Your task to perform on an android device: Show the shopping cart on newegg.com. Search for "usb-a" on newegg.com, select the first entry, add it to the cart, then select checkout. Image 0: 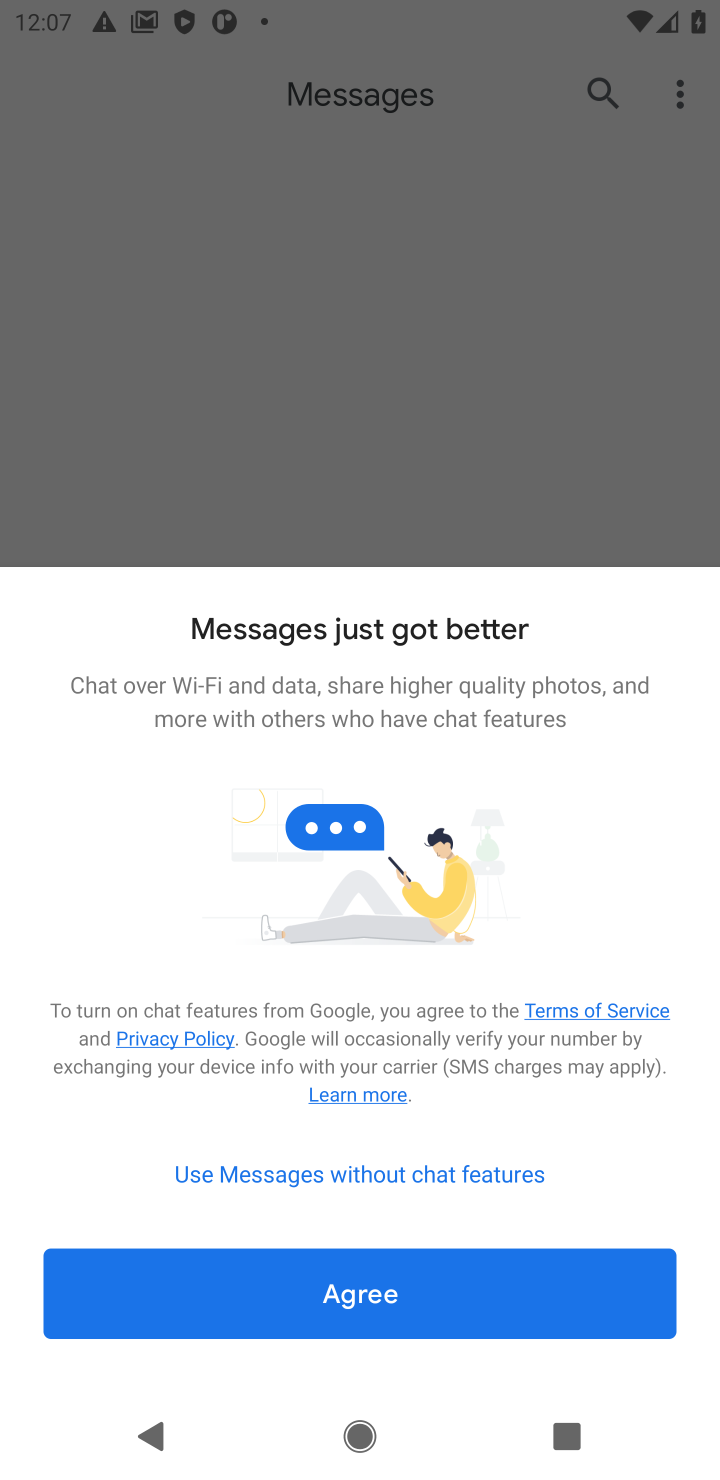
Step 0: press home button
Your task to perform on an android device: Show the shopping cart on newegg.com. Search for "usb-a" on newegg.com, select the first entry, add it to the cart, then select checkout. Image 1: 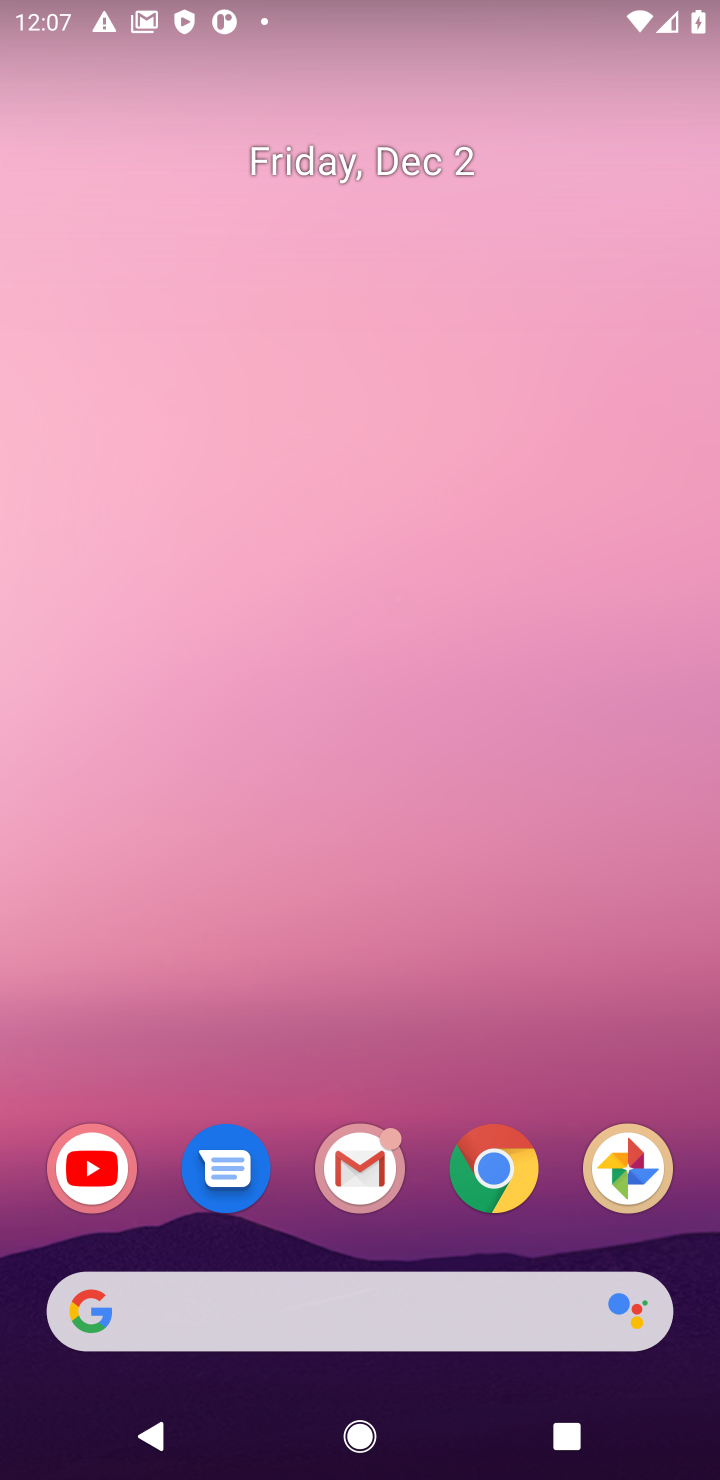
Step 1: click (488, 1171)
Your task to perform on an android device: Show the shopping cart on newegg.com. Search for "usb-a" on newegg.com, select the first entry, add it to the cart, then select checkout. Image 2: 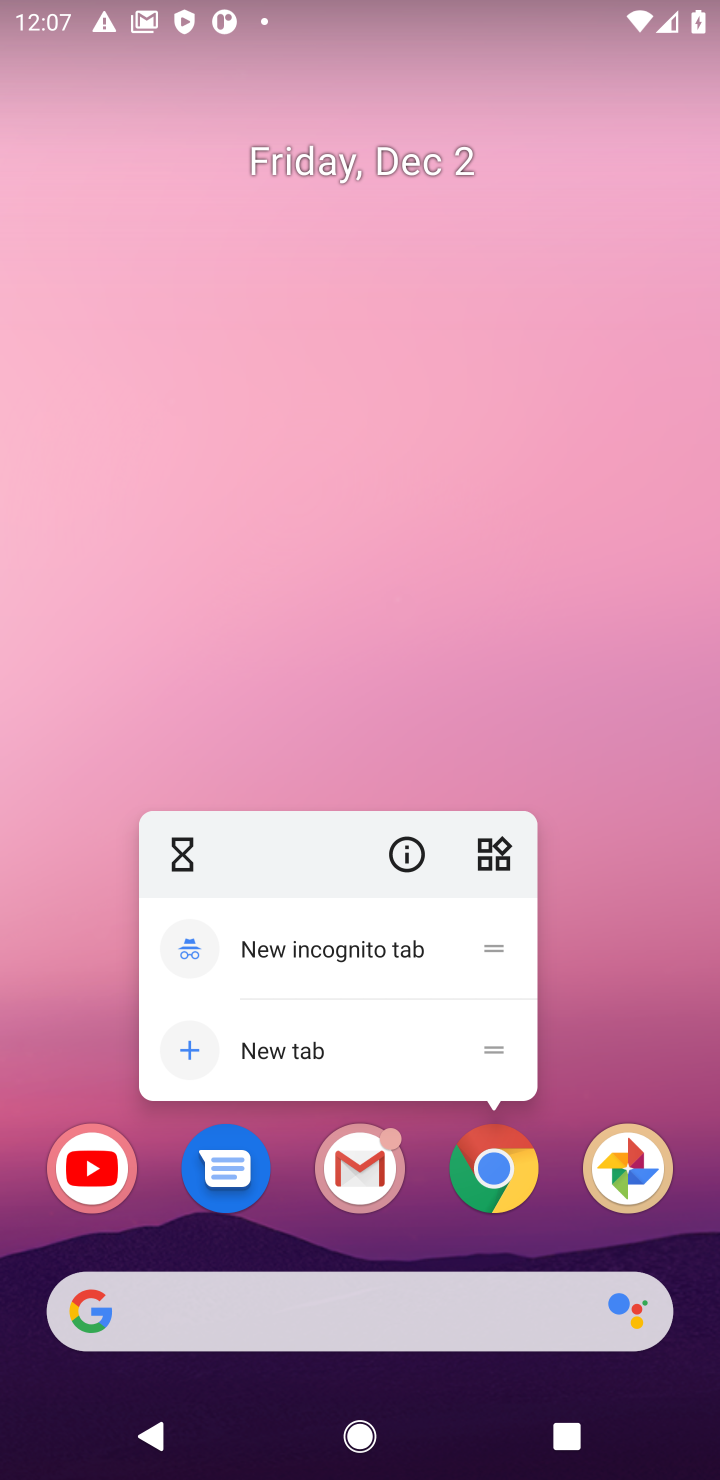
Step 2: click (488, 1171)
Your task to perform on an android device: Show the shopping cart on newegg.com. Search for "usb-a" on newegg.com, select the first entry, add it to the cart, then select checkout. Image 3: 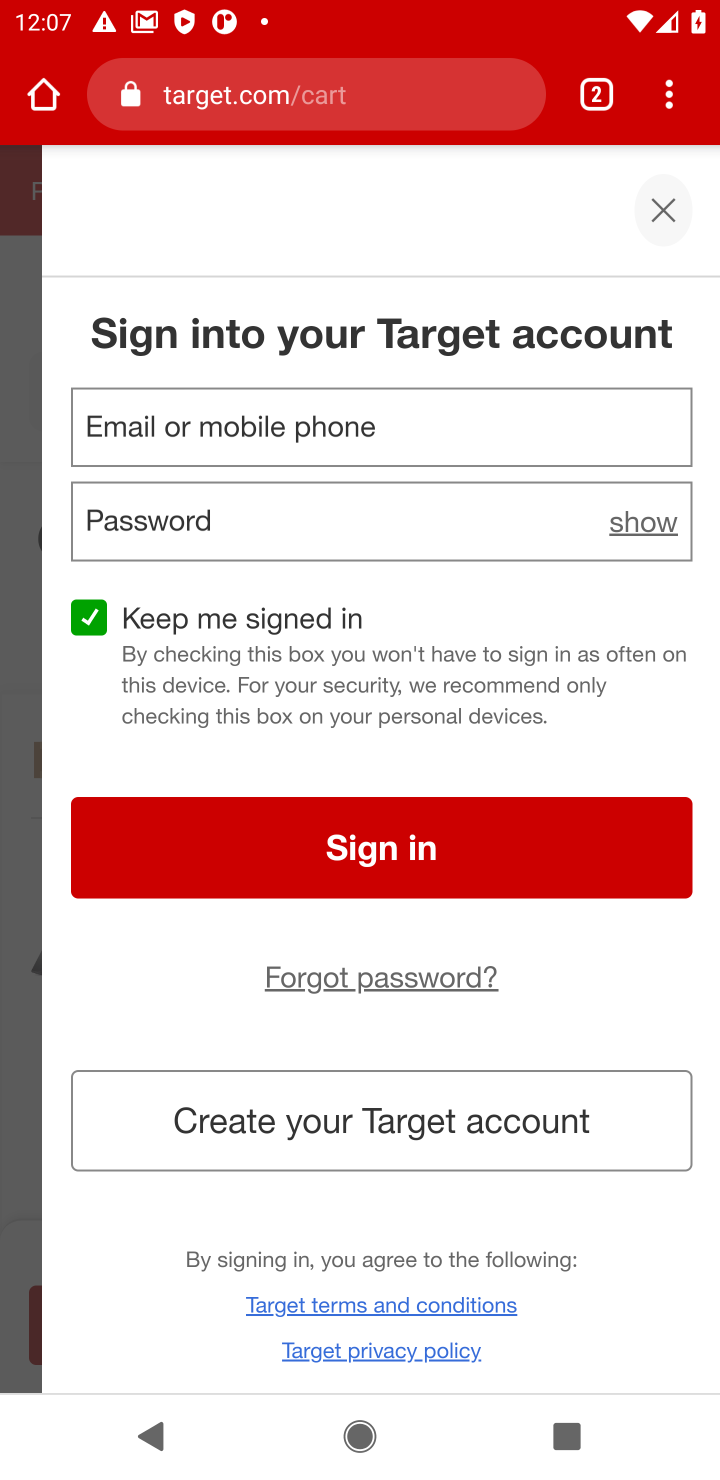
Step 3: click (270, 102)
Your task to perform on an android device: Show the shopping cart on newegg.com. Search for "usb-a" on newegg.com, select the first entry, add it to the cart, then select checkout. Image 4: 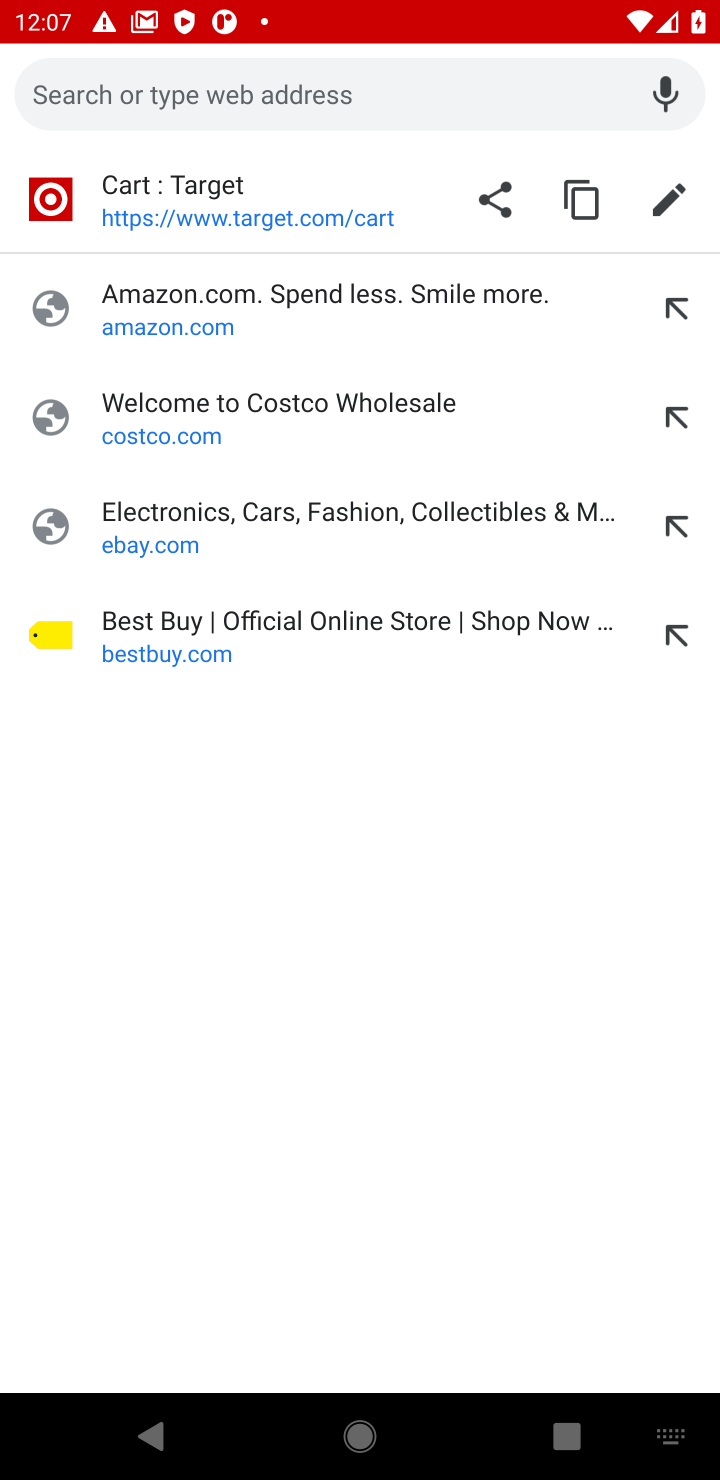
Step 4: type "newegg.com"
Your task to perform on an android device: Show the shopping cart on newegg.com. Search for "usb-a" on newegg.com, select the first entry, add it to the cart, then select checkout. Image 5: 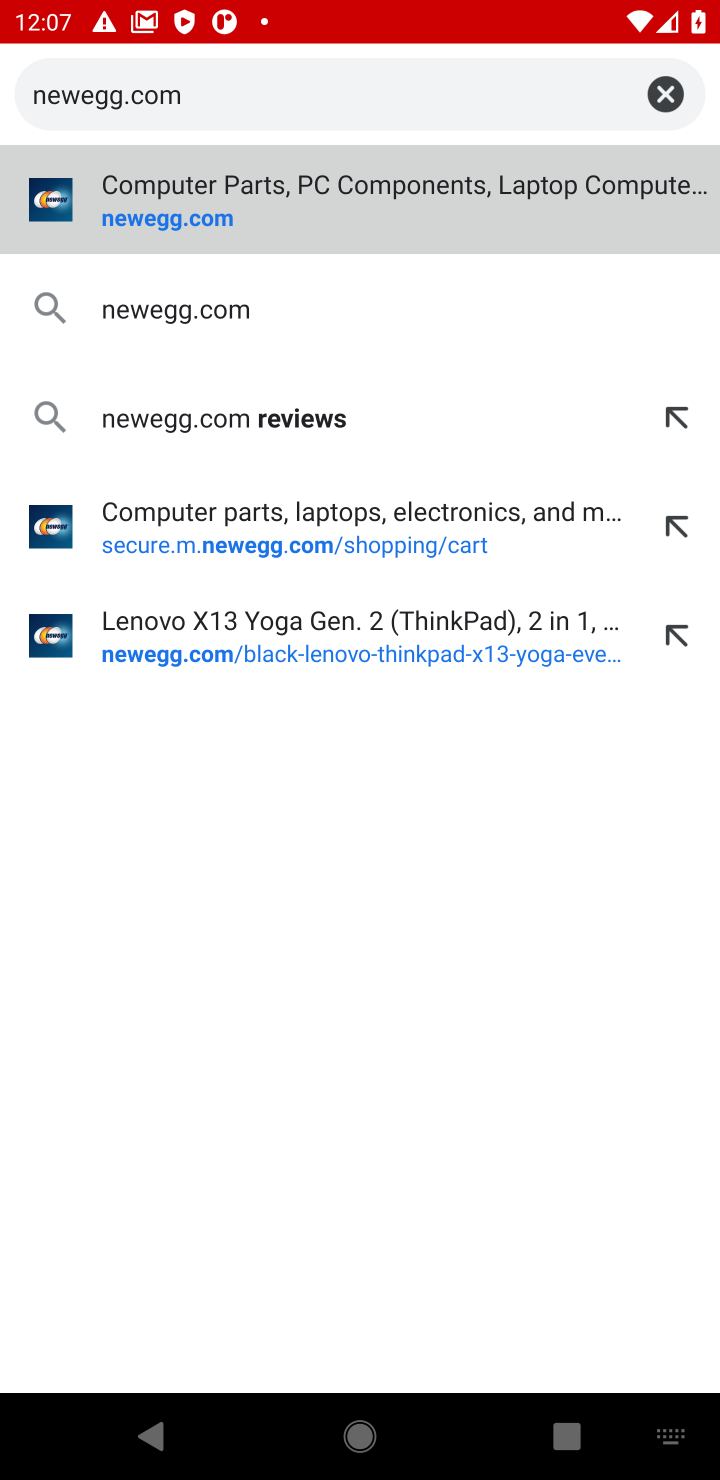
Step 5: click (159, 217)
Your task to perform on an android device: Show the shopping cart on newegg.com. Search for "usb-a" on newegg.com, select the first entry, add it to the cart, then select checkout. Image 6: 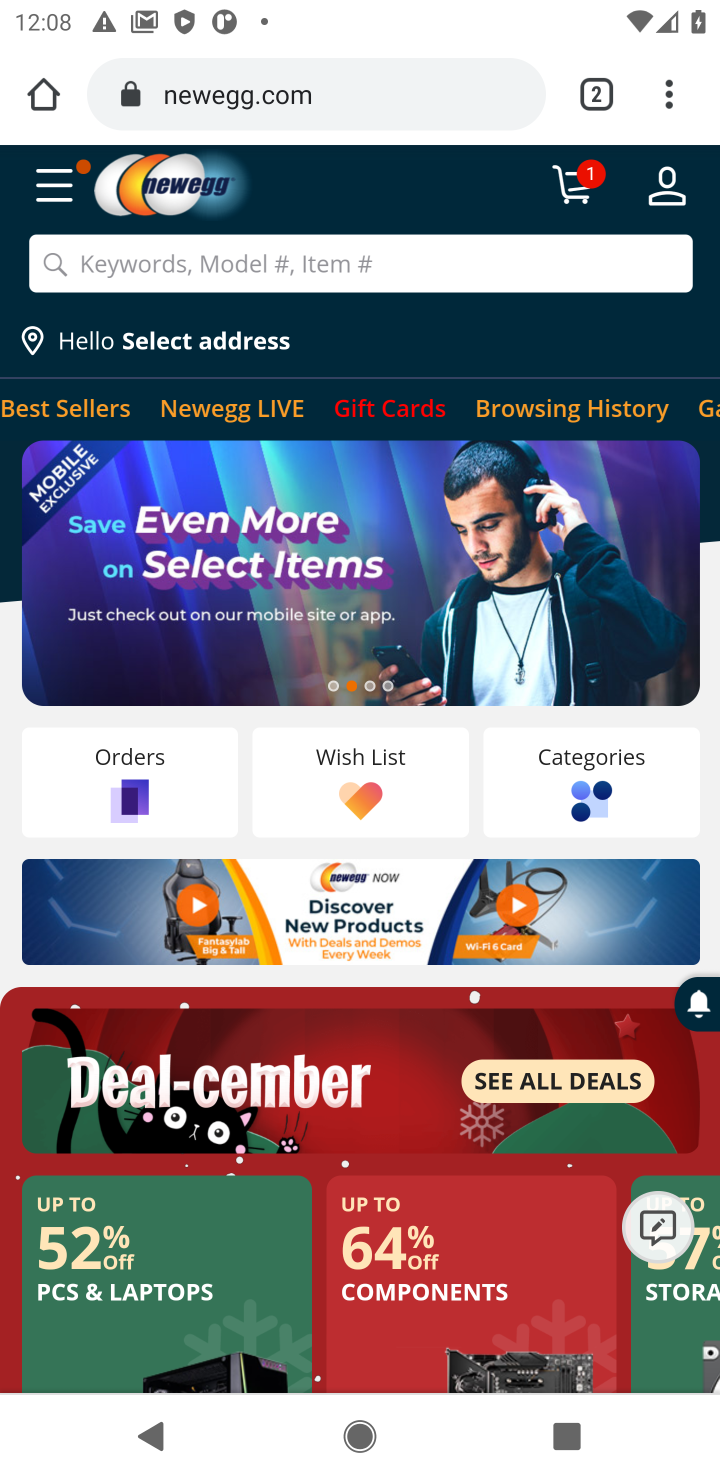
Step 6: click (563, 194)
Your task to perform on an android device: Show the shopping cart on newegg.com. Search for "usb-a" on newegg.com, select the first entry, add it to the cart, then select checkout. Image 7: 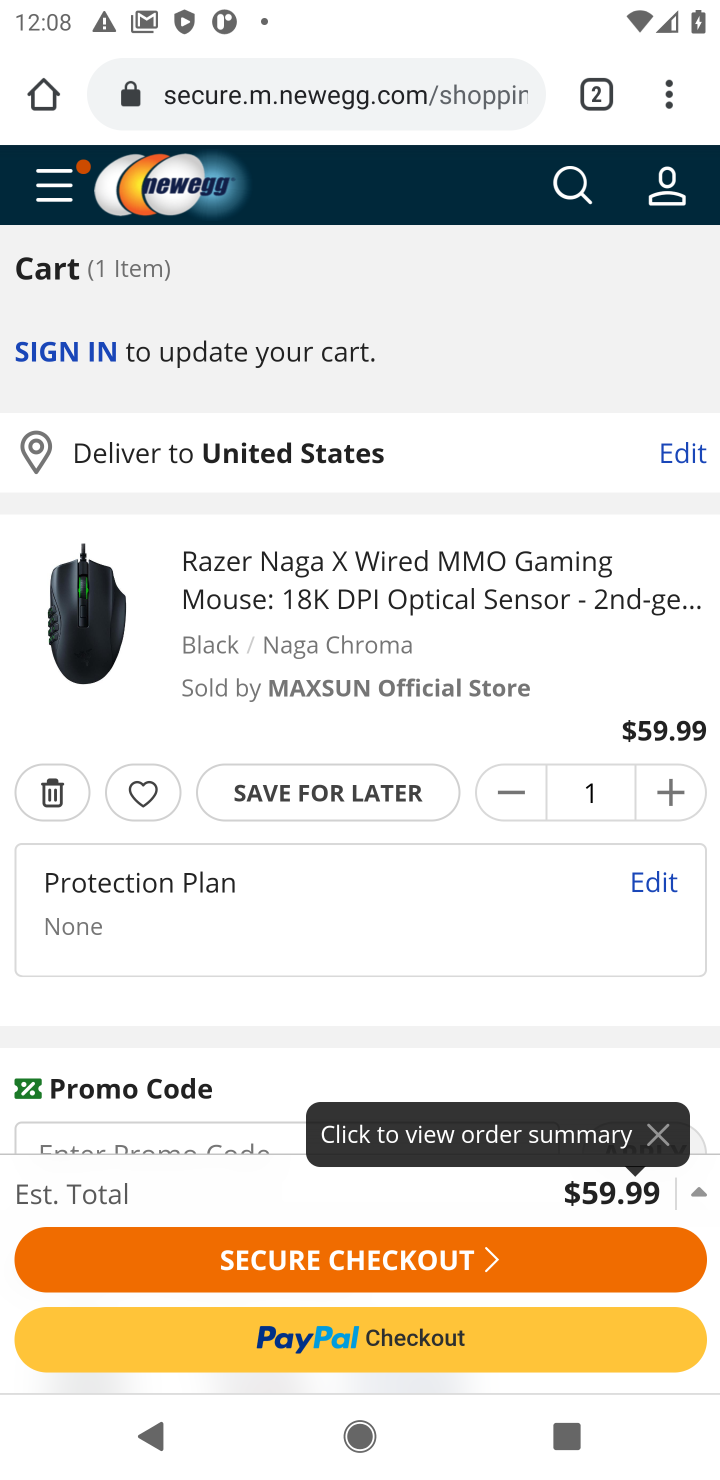
Step 7: click (566, 190)
Your task to perform on an android device: Show the shopping cart on newegg.com. Search for "usb-a" on newegg.com, select the first entry, add it to the cart, then select checkout. Image 8: 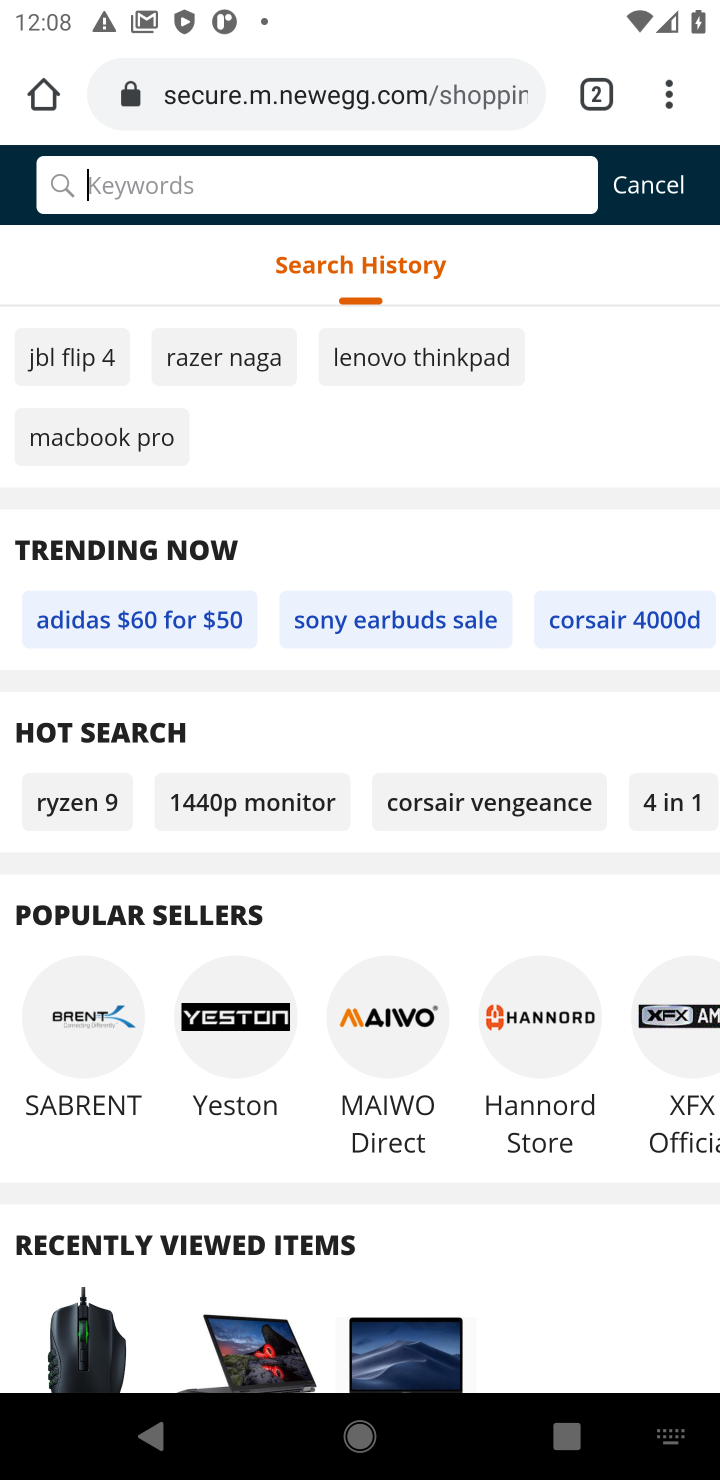
Step 8: type "usb-a"
Your task to perform on an android device: Show the shopping cart on newegg.com. Search for "usb-a" on newegg.com, select the first entry, add it to the cart, then select checkout. Image 9: 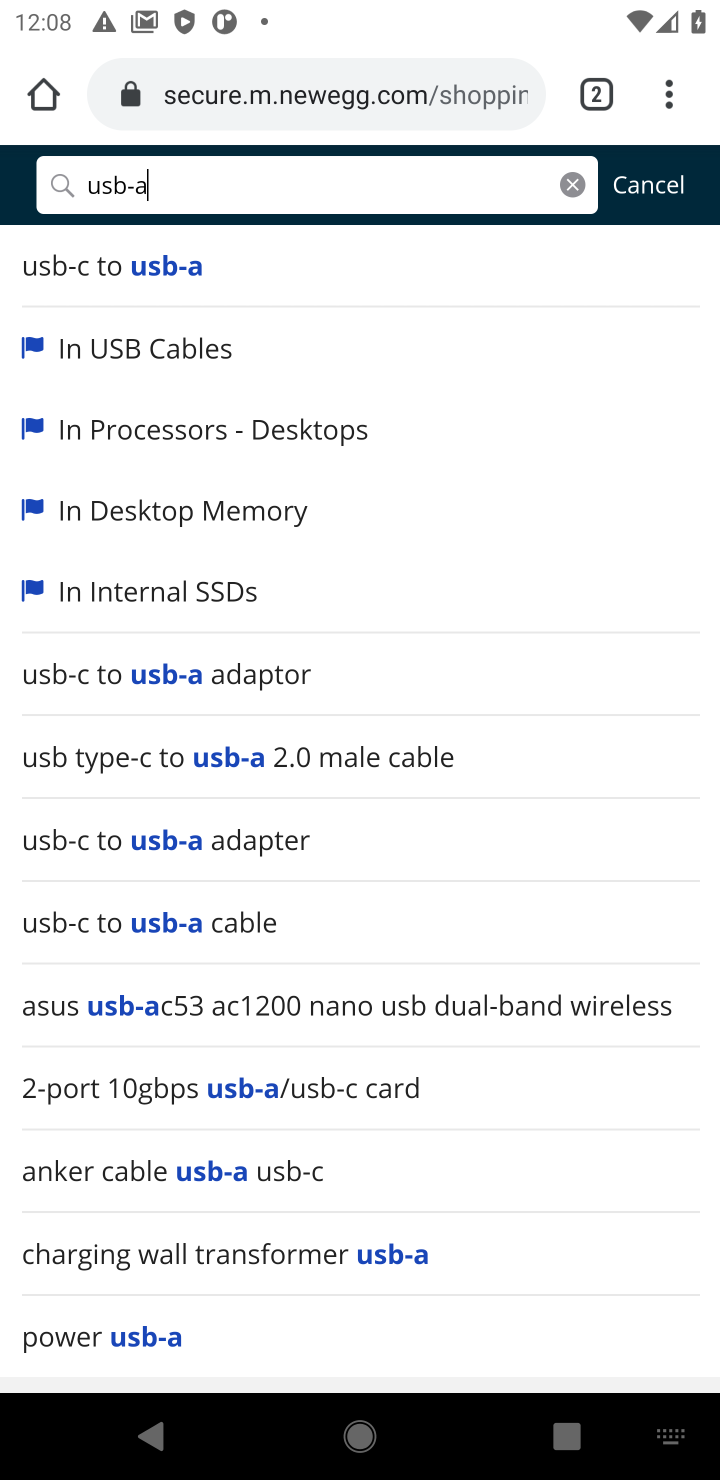
Step 9: click (134, 1350)
Your task to perform on an android device: Show the shopping cart on newegg.com. Search for "usb-a" on newegg.com, select the first entry, add it to the cart, then select checkout. Image 10: 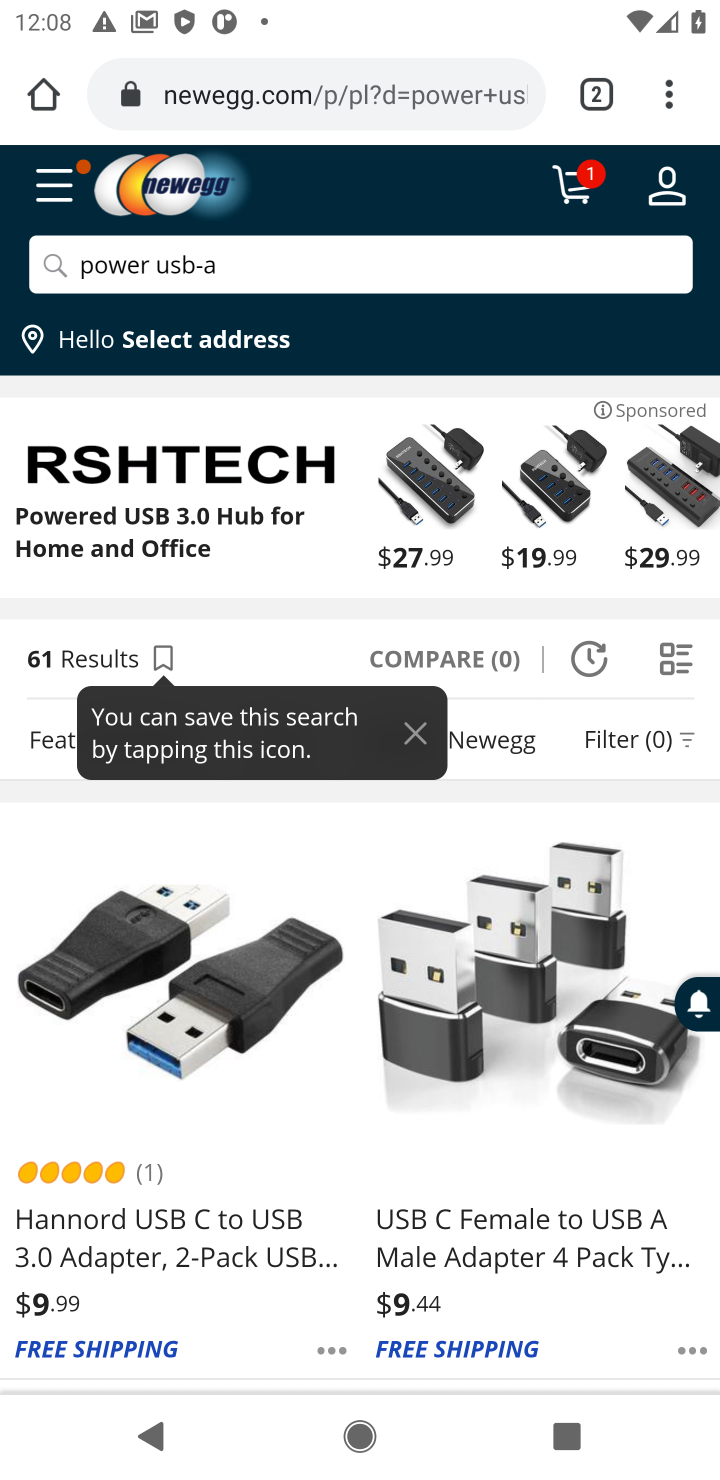
Step 10: click (209, 1041)
Your task to perform on an android device: Show the shopping cart on newegg.com. Search for "usb-a" on newegg.com, select the first entry, add it to the cart, then select checkout. Image 11: 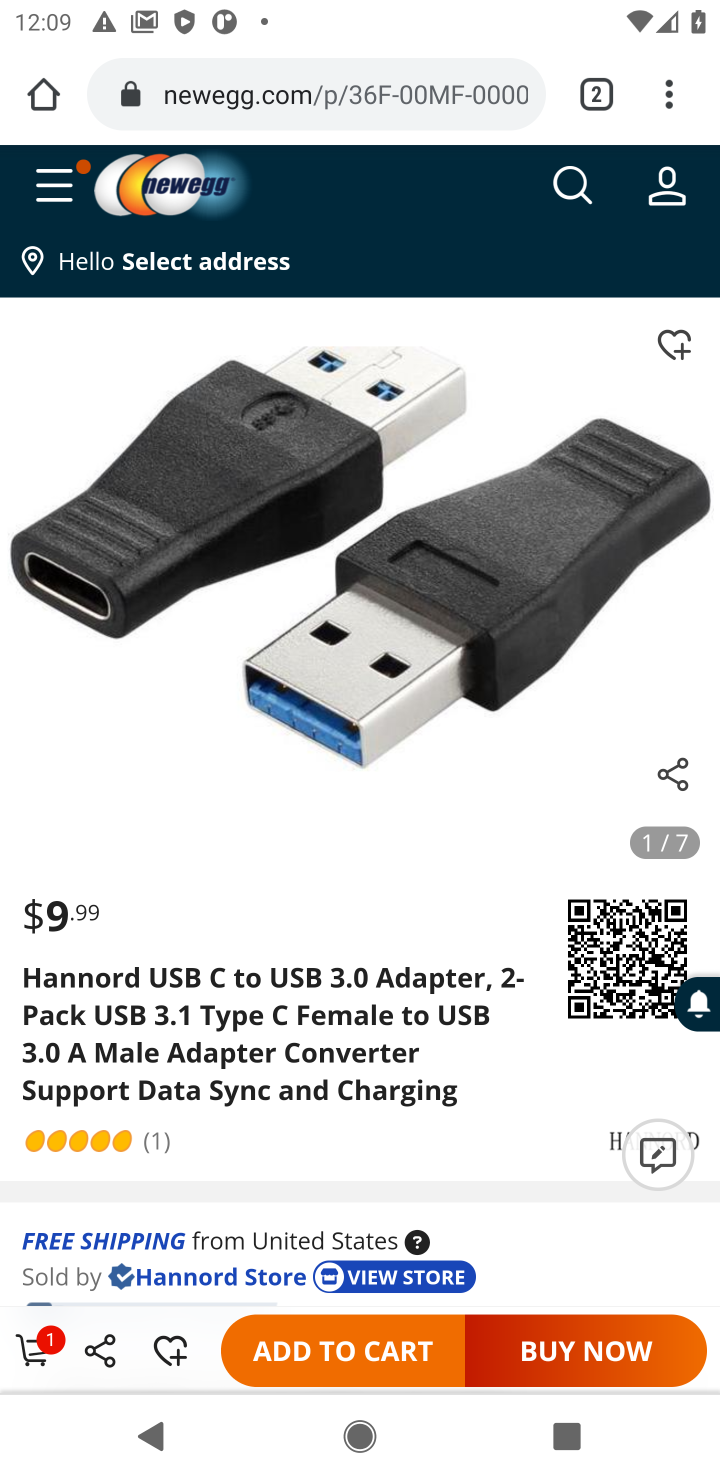
Step 11: click (354, 1359)
Your task to perform on an android device: Show the shopping cart on newegg.com. Search for "usb-a" on newegg.com, select the first entry, add it to the cart, then select checkout. Image 12: 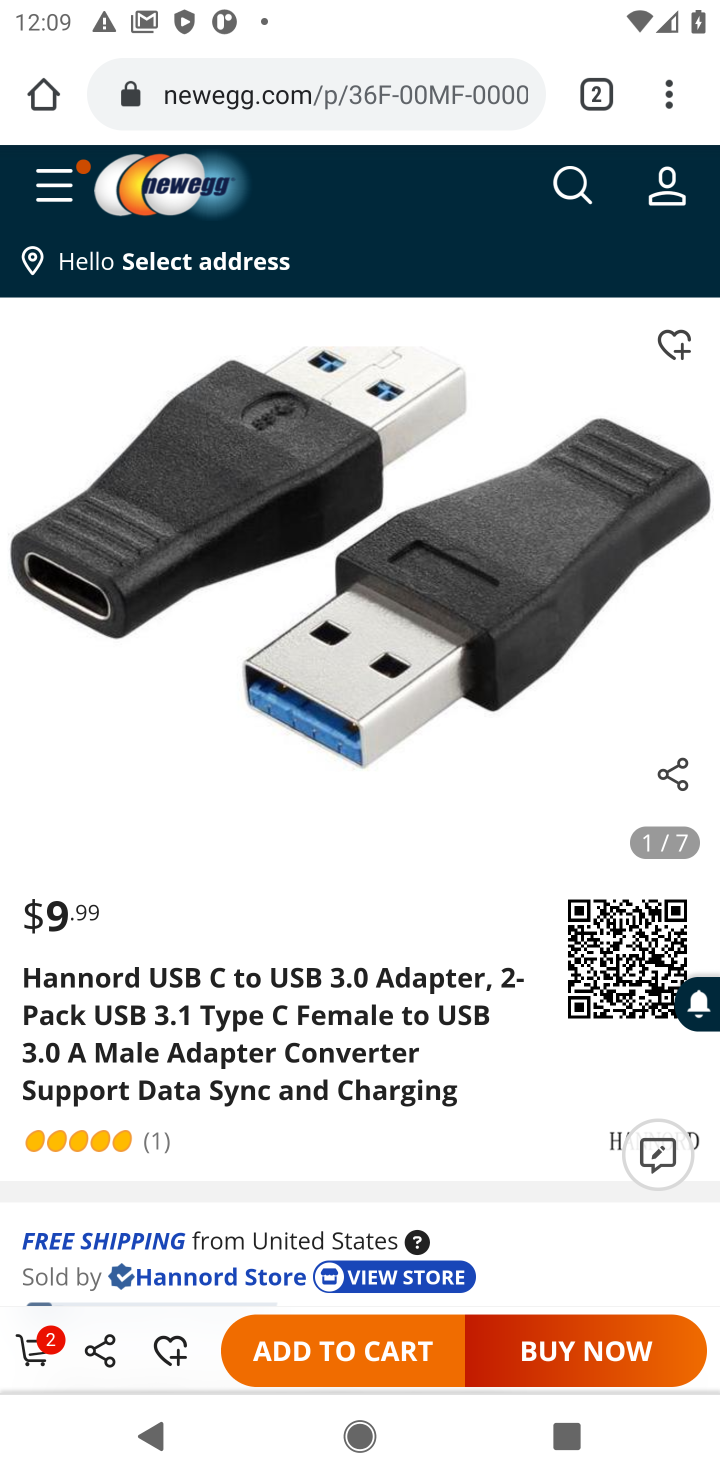
Step 12: click (35, 1345)
Your task to perform on an android device: Show the shopping cart on newegg.com. Search for "usb-a" on newegg.com, select the first entry, add it to the cart, then select checkout. Image 13: 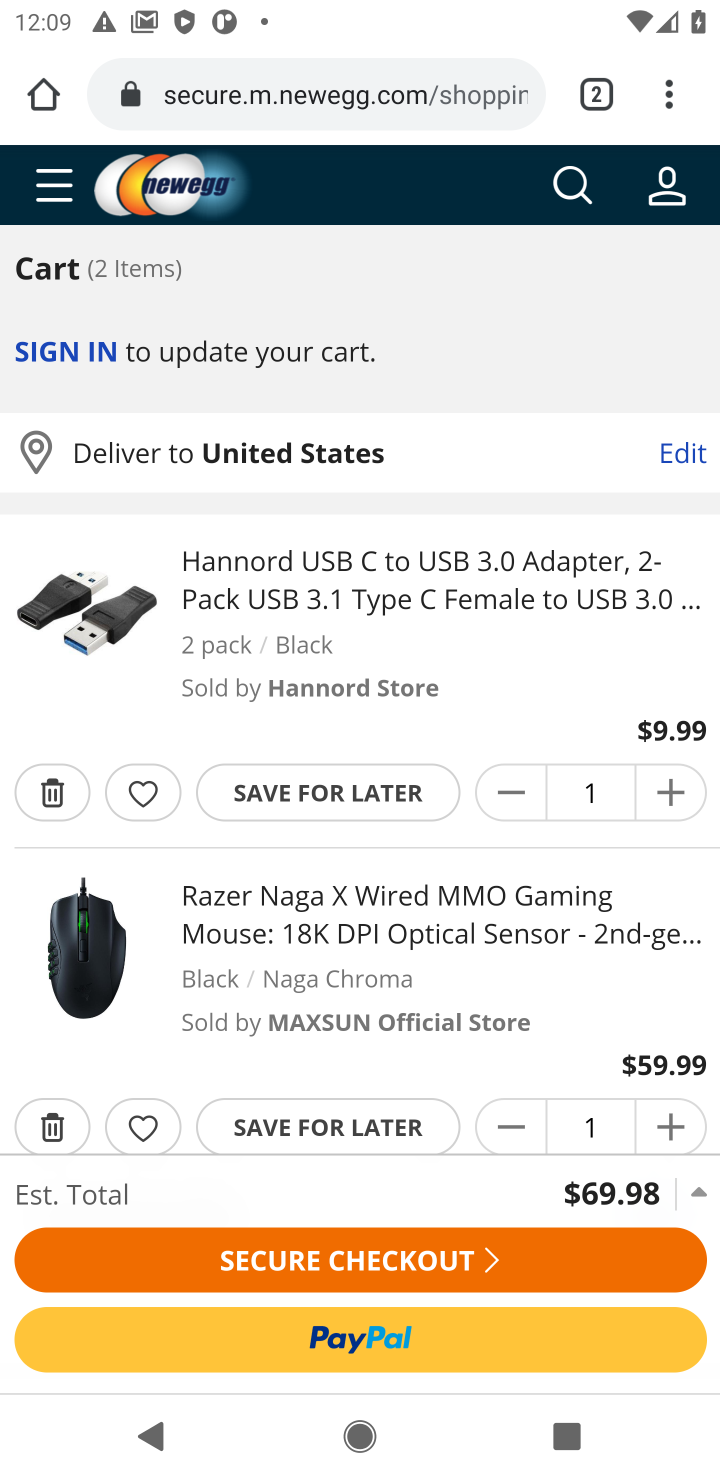
Step 13: click (245, 1317)
Your task to perform on an android device: Show the shopping cart on newegg.com. Search for "usb-a" on newegg.com, select the first entry, add it to the cart, then select checkout. Image 14: 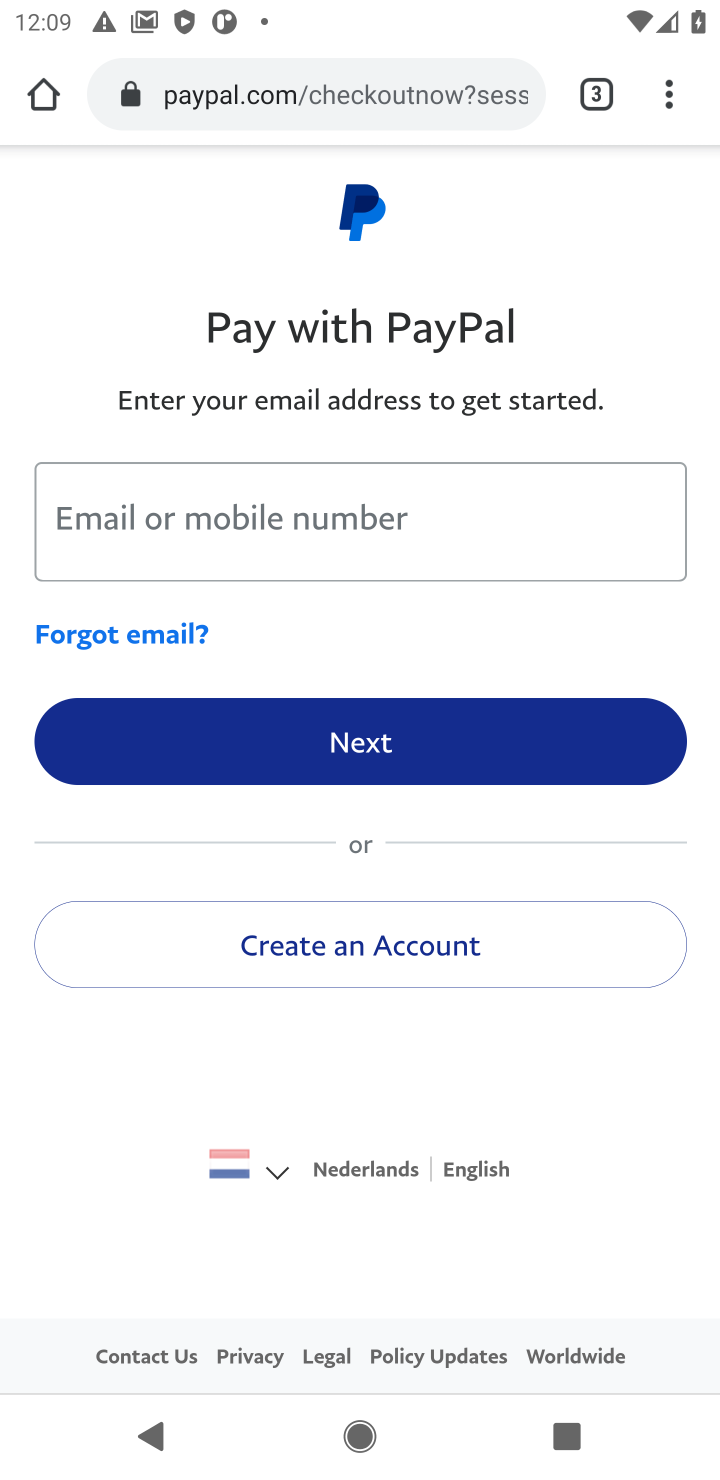
Step 14: task complete